Your task to perform on an android device: turn off picture-in-picture Image 0: 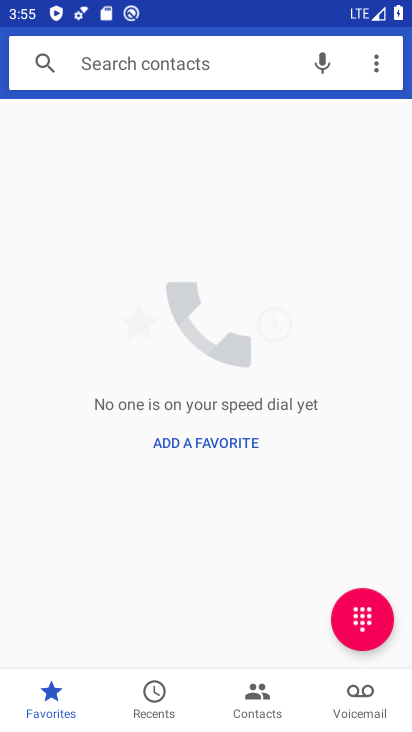
Step 0: press home button
Your task to perform on an android device: turn off picture-in-picture Image 1: 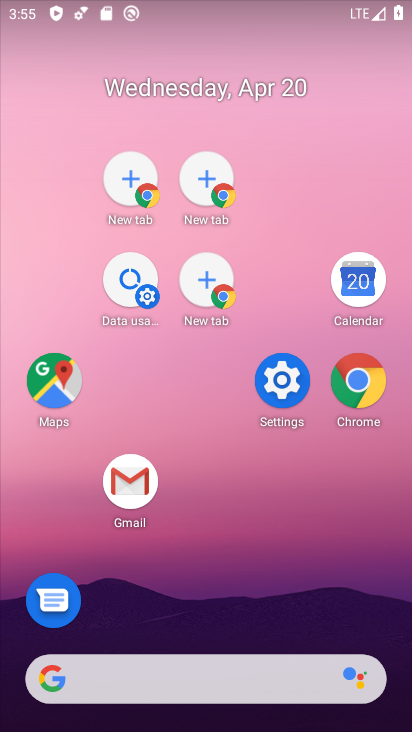
Step 1: drag from (353, 362) to (309, 190)
Your task to perform on an android device: turn off picture-in-picture Image 2: 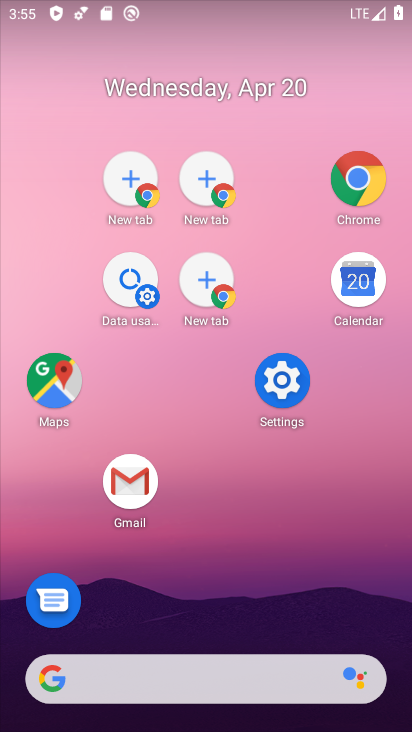
Step 2: drag from (354, 173) to (255, 584)
Your task to perform on an android device: turn off picture-in-picture Image 3: 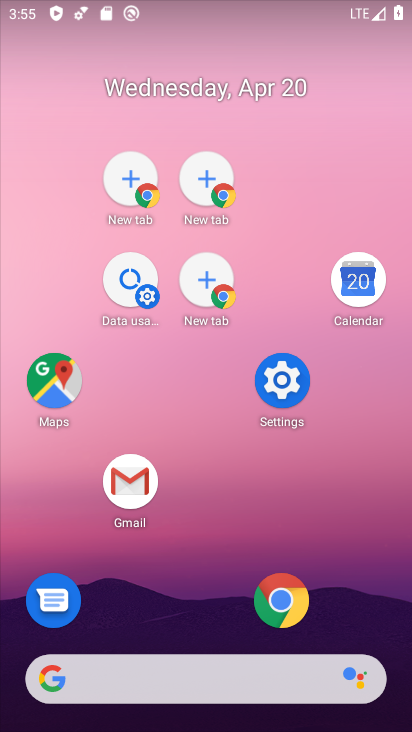
Step 3: click (290, 607)
Your task to perform on an android device: turn off picture-in-picture Image 4: 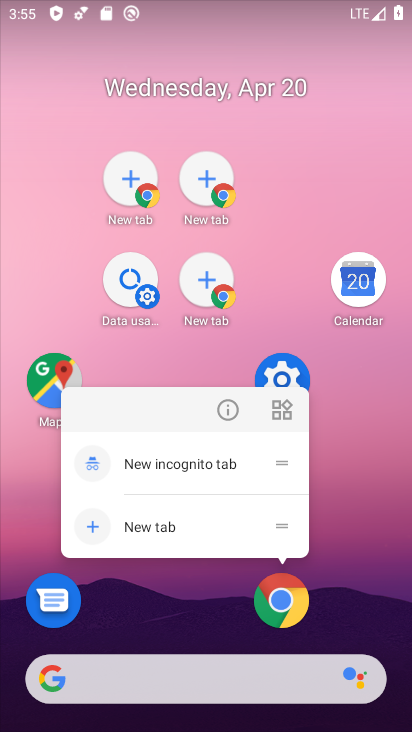
Step 4: click (222, 389)
Your task to perform on an android device: turn off picture-in-picture Image 5: 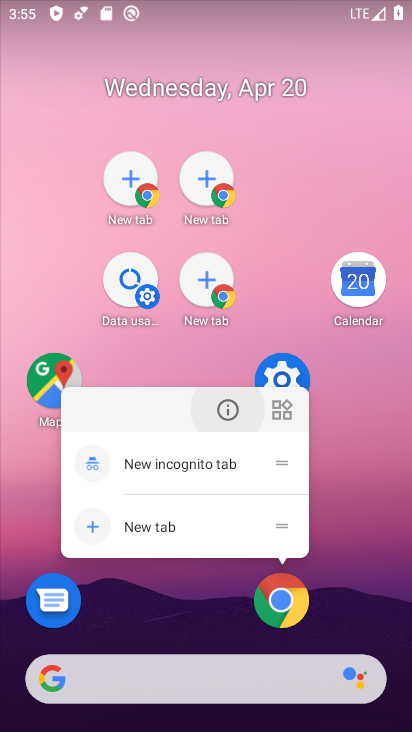
Step 5: click (222, 406)
Your task to perform on an android device: turn off picture-in-picture Image 6: 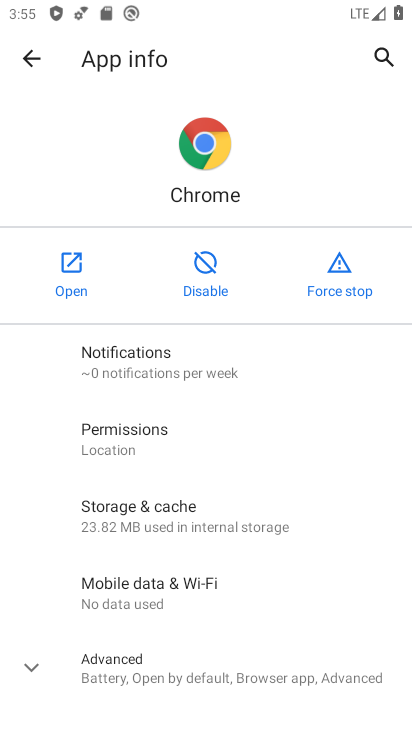
Step 6: click (125, 668)
Your task to perform on an android device: turn off picture-in-picture Image 7: 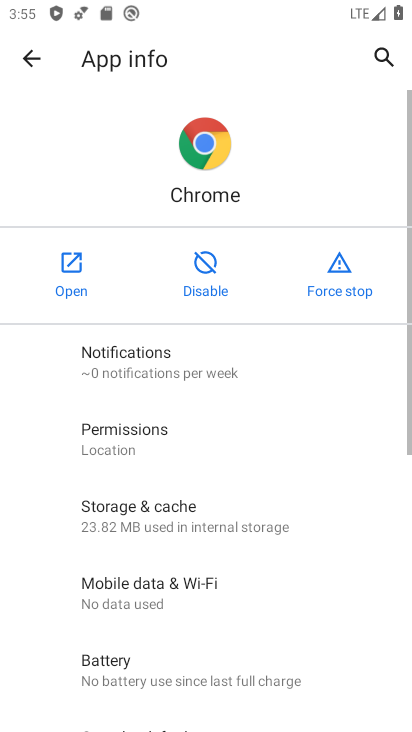
Step 7: drag from (223, 642) to (169, 281)
Your task to perform on an android device: turn off picture-in-picture Image 8: 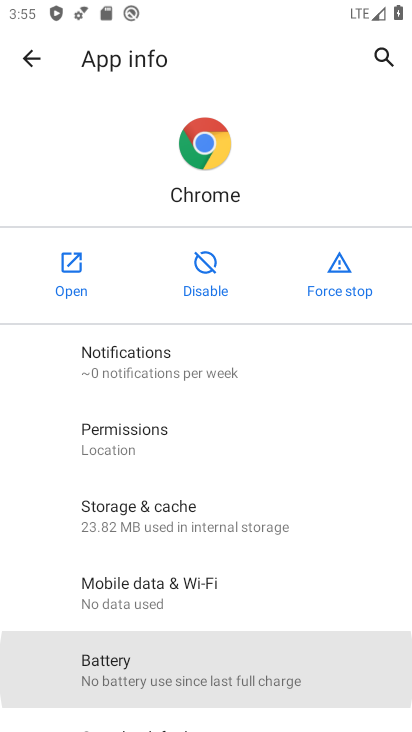
Step 8: drag from (187, 529) to (139, 229)
Your task to perform on an android device: turn off picture-in-picture Image 9: 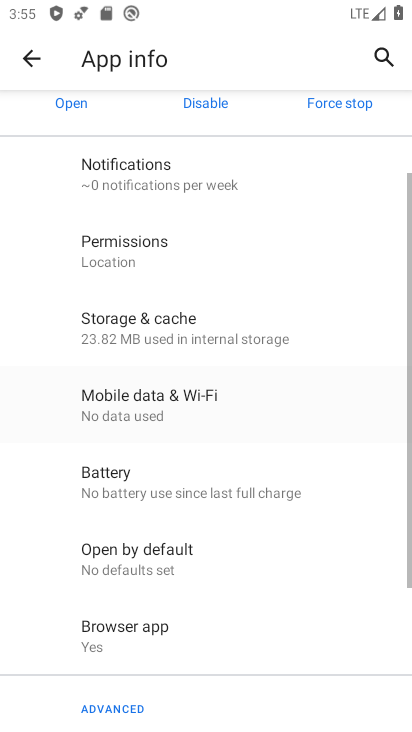
Step 9: drag from (189, 587) to (204, 308)
Your task to perform on an android device: turn off picture-in-picture Image 10: 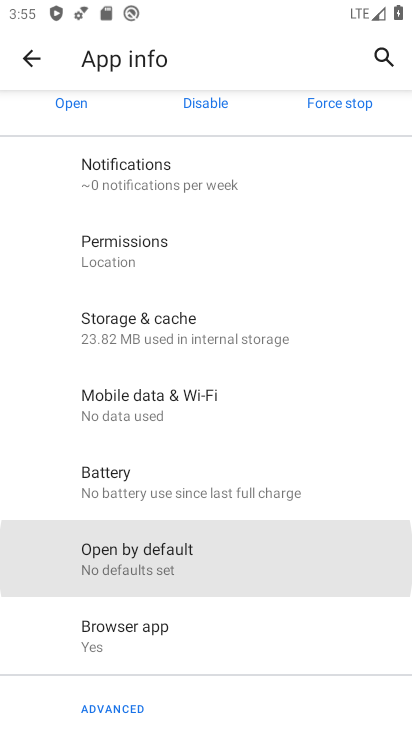
Step 10: drag from (182, 520) to (166, 214)
Your task to perform on an android device: turn off picture-in-picture Image 11: 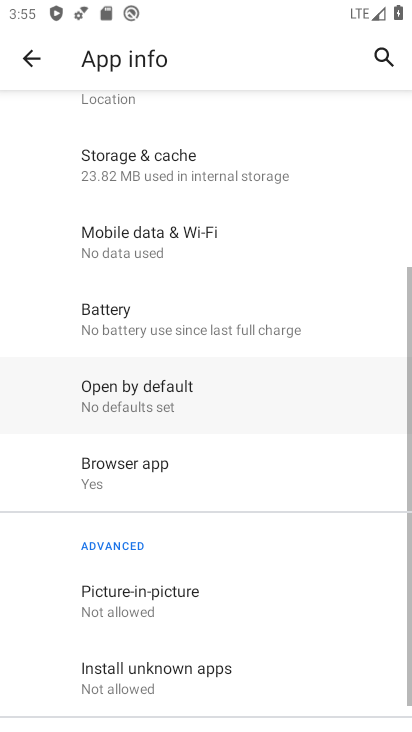
Step 11: drag from (193, 353) to (193, 185)
Your task to perform on an android device: turn off picture-in-picture Image 12: 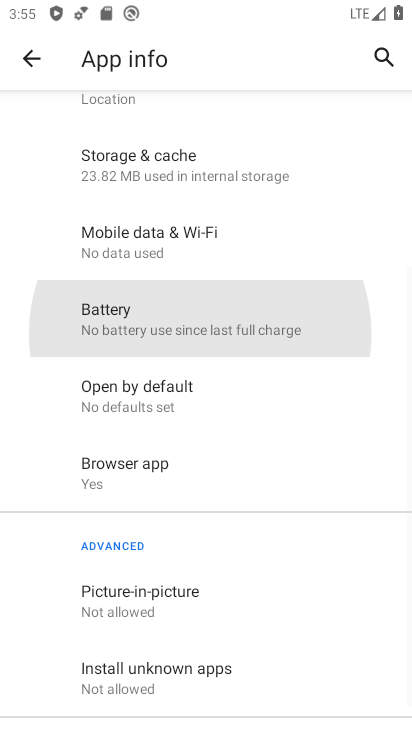
Step 12: drag from (254, 540) to (227, 128)
Your task to perform on an android device: turn off picture-in-picture Image 13: 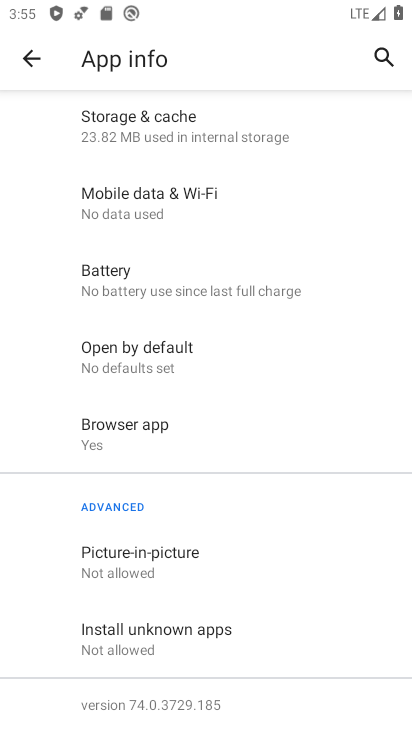
Step 13: click (136, 566)
Your task to perform on an android device: turn off picture-in-picture Image 14: 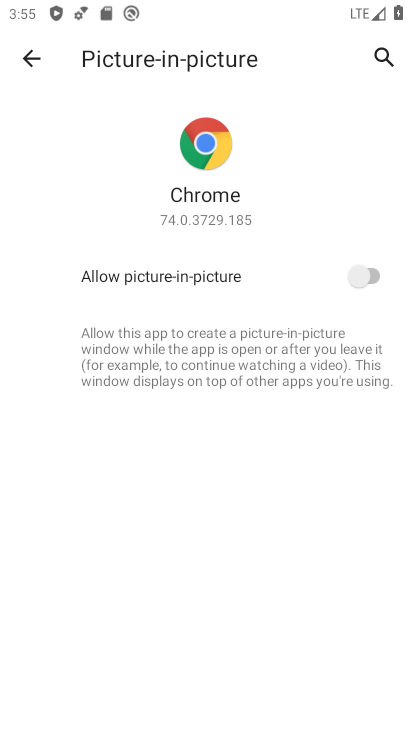
Step 14: task complete